Your task to perform on an android device: toggle data saver in the chrome app Image 0: 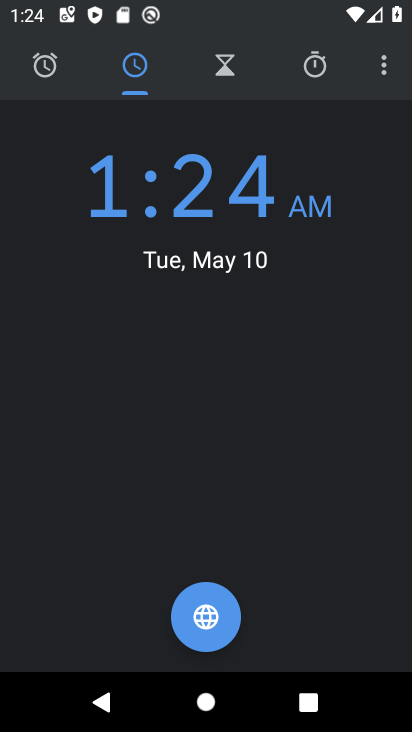
Step 0: press home button
Your task to perform on an android device: toggle data saver in the chrome app Image 1: 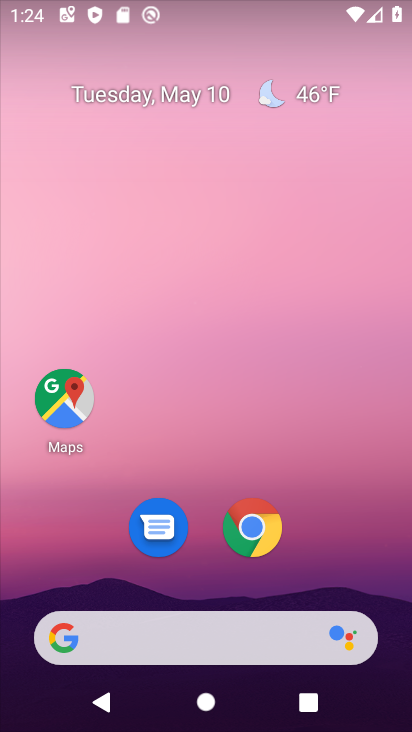
Step 1: click (263, 527)
Your task to perform on an android device: toggle data saver in the chrome app Image 2: 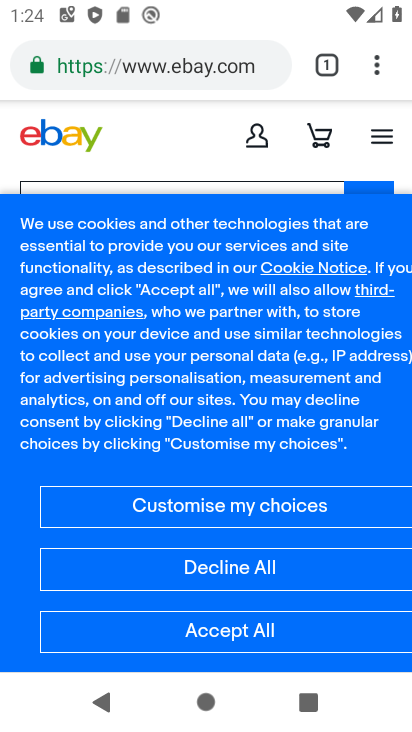
Step 2: drag from (381, 63) to (164, 577)
Your task to perform on an android device: toggle data saver in the chrome app Image 3: 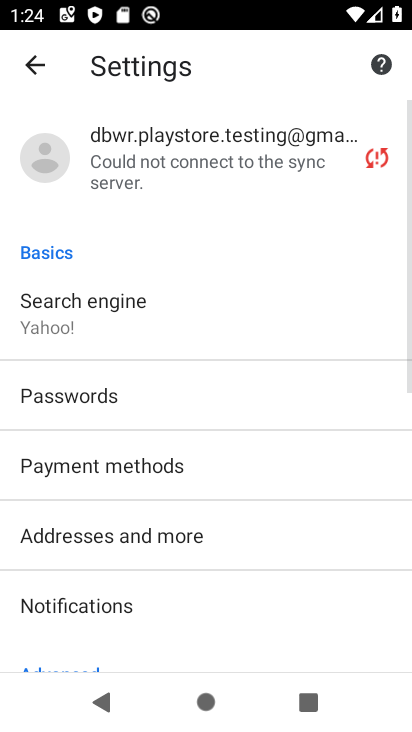
Step 3: drag from (198, 563) to (189, 242)
Your task to perform on an android device: toggle data saver in the chrome app Image 4: 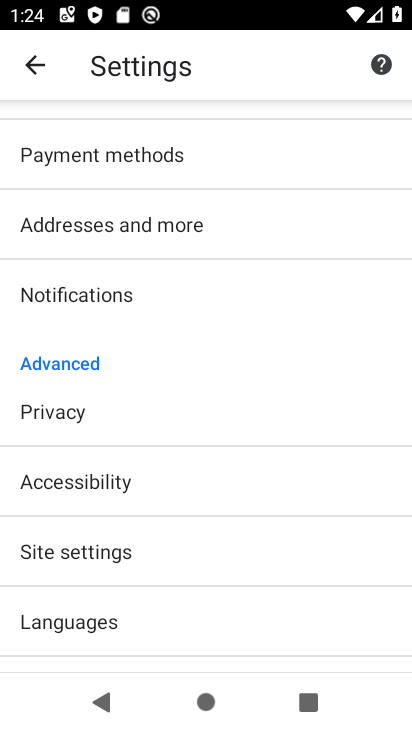
Step 4: drag from (206, 580) to (194, 302)
Your task to perform on an android device: toggle data saver in the chrome app Image 5: 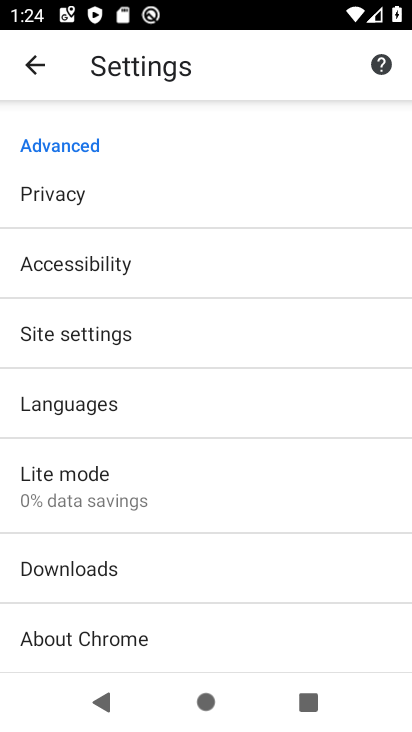
Step 5: click (86, 489)
Your task to perform on an android device: toggle data saver in the chrome app Image 6: 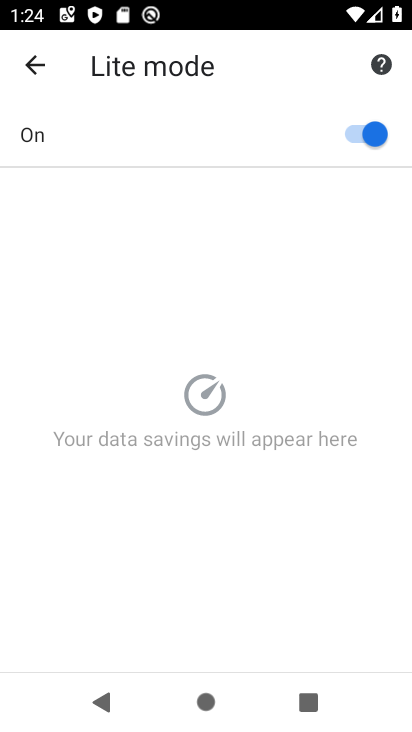
Step 6: click (368, 142)
Your task to perform on an android device: toggle data saver in the chrome app Image 7: 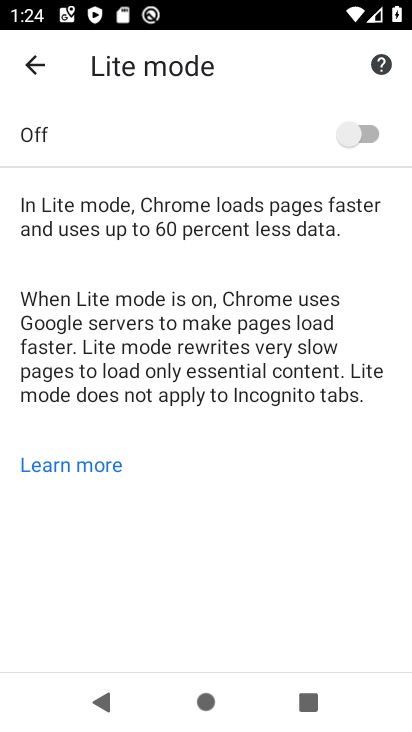
Step 7: task complete